Your task to perform on an android device: What's the weather? Image 0: 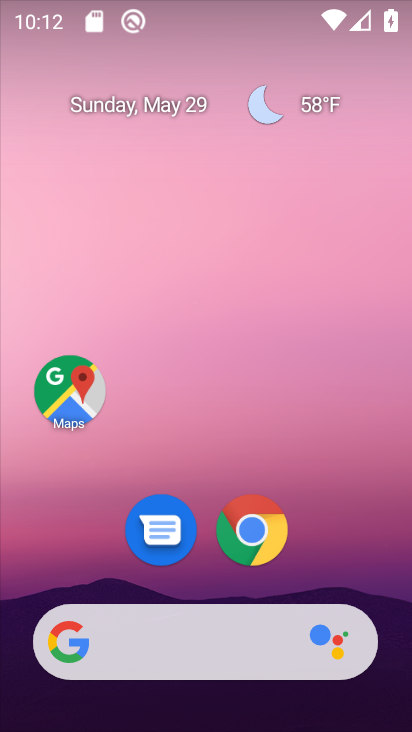
Step 0: click (304, 114)
Your task to perform on an android device: What's the weather? Image 1: 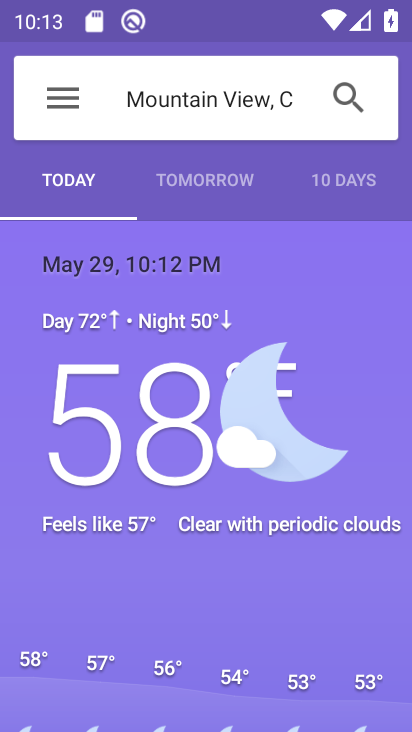
Step 1: task complete